Your task to perform on an android device: Open internet settings Image 0: 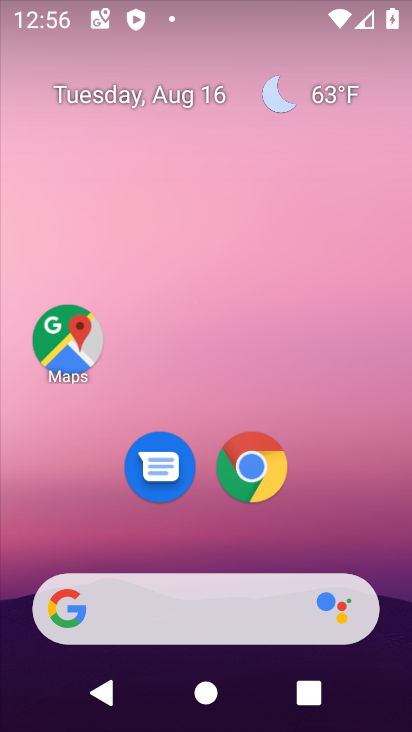
Step 0: drag from (360, 522) to (377, 106)
Your task to perform on an android device: Open internet settings Image 1: 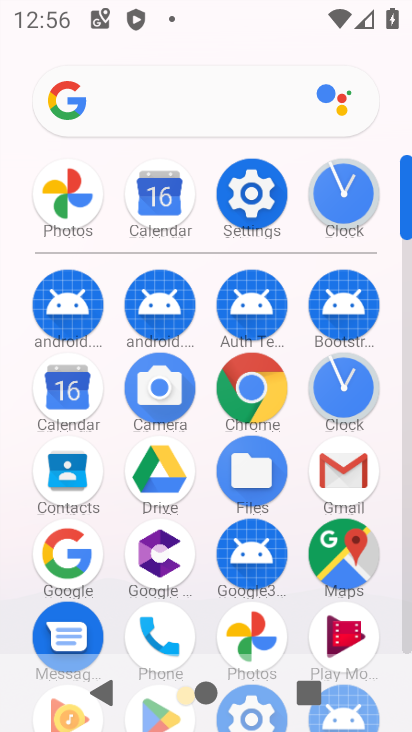
Step 1: click (253, 202)
Your task to perform on an android device: Open internet settings Image 2: 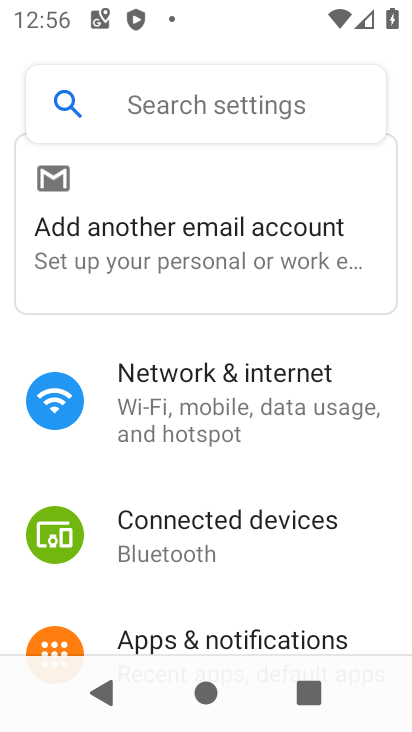
Step 2: drag from (376, 567) to (379, 453)
Your task to perform on an android device: Open internet settings Image 3: 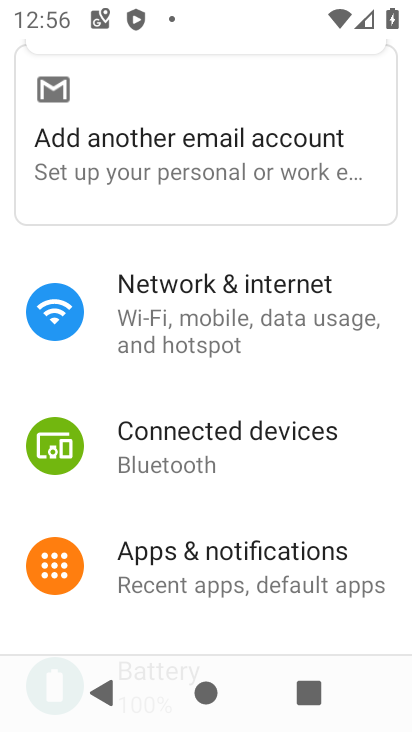
Step 3: drag from (357, 597) to (357, 449)
Your task to perform on an android device: Open internet settings Image 4: 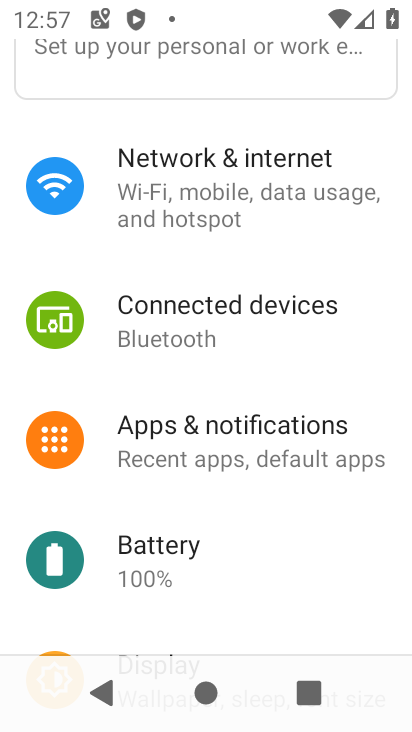
Step 4: drag from (352, 579) to (356, 450)
Your task to perform on an android device: Open internet settings Image 5: 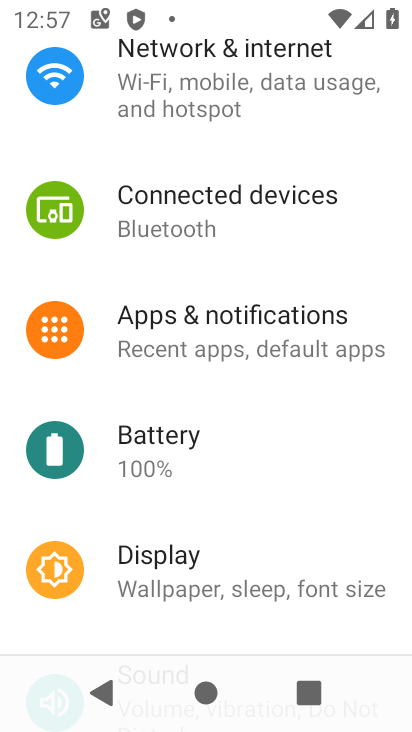
Step 5: drag from (369, 622) to (369, 471)
Your task to perform on an android device: Open internet settings Image 6: 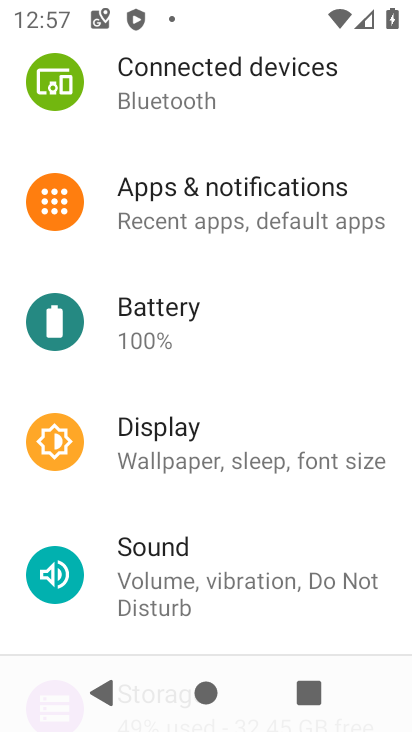
Step 6: drag from (352, 617) to (362, 471)
Your task to perform on an android device: Open internet settings Image 7: 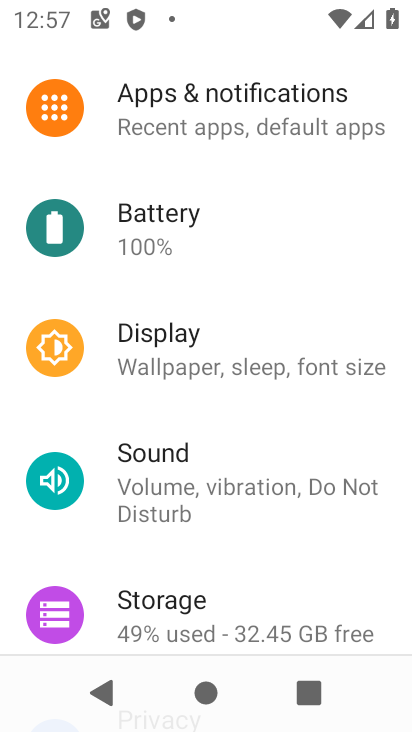
Step 7: drag from (356, 592) to (356, 456)
Your task to perform on an android device: Open internet settings Image 8: 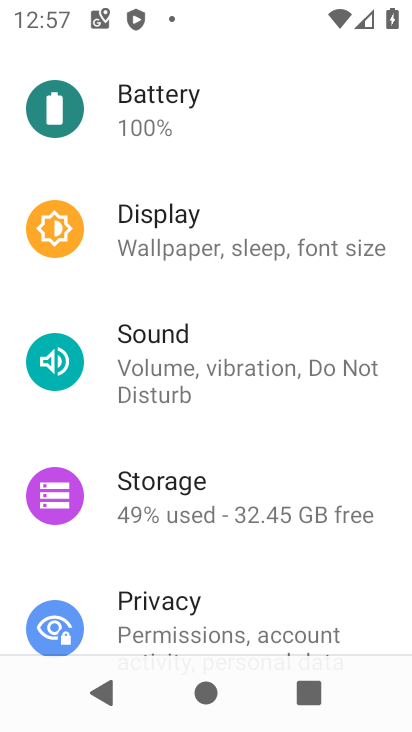
Step 8: drag from (364, 594) to (356, 440)
Your task to perform on an android device: Open internet settings Image 9: 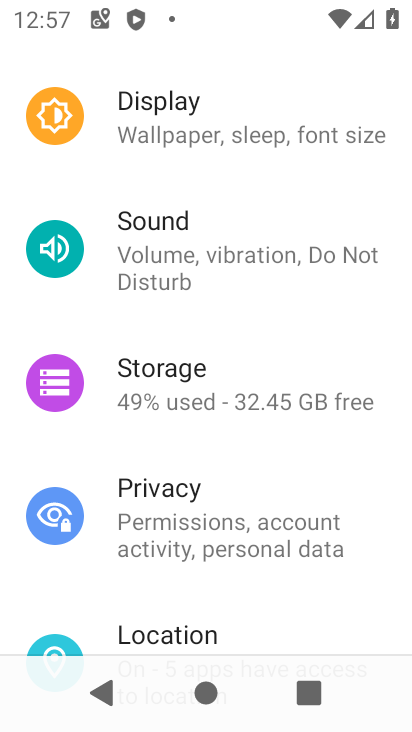
Step 9: drag from (361, 617) to (356, 485)
Your task to perform on an android device: Open internet settings Image 10: 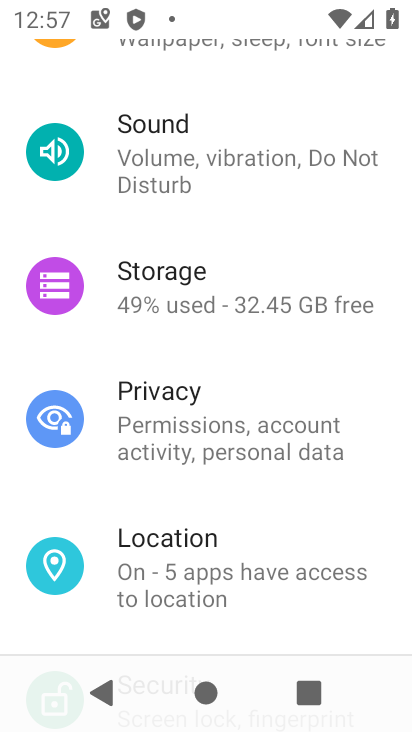
Step 10: drag from (368, 601) to (371, 378)
Your task to perform on an android device: Open internet settings Image 11: 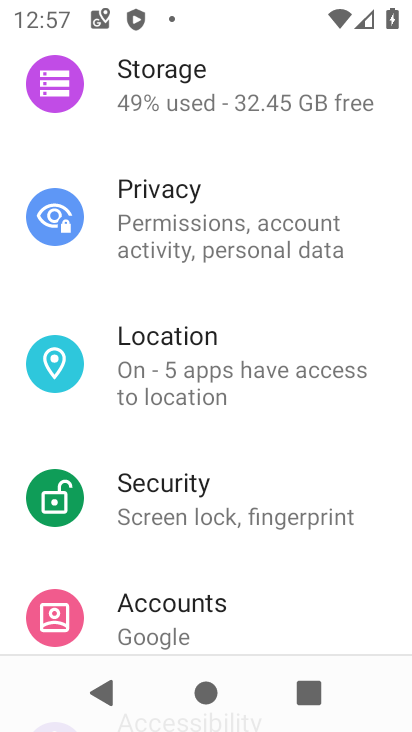
Step 11: drag from (374, 252) to (364, 384)
Your task to perform on an android device: Open internet settings Image 12: 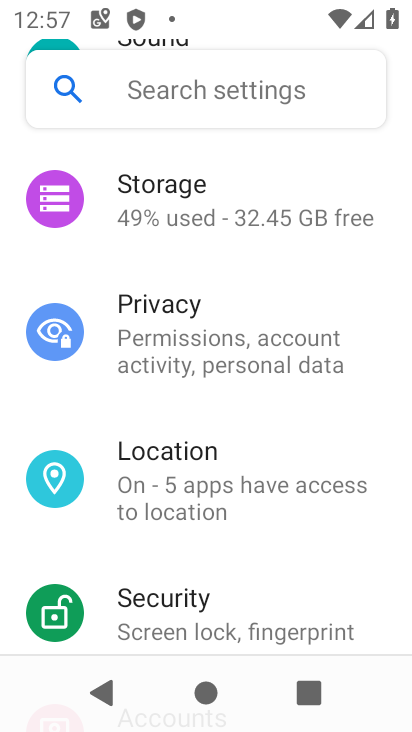
Step 12: drag from (375, 277) to (371, 375)
Your task to perform on an android device: Open internet settings Image 13: 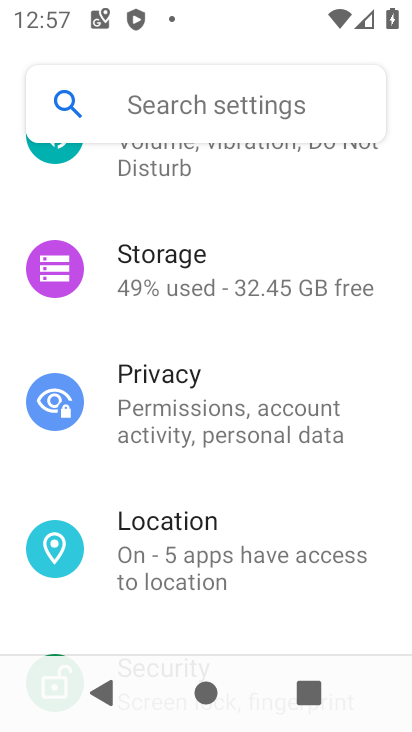
Step 13: drag from (389, 244) to (377, 373)
Your task to perform on an android device: Open internet settings Image 14: 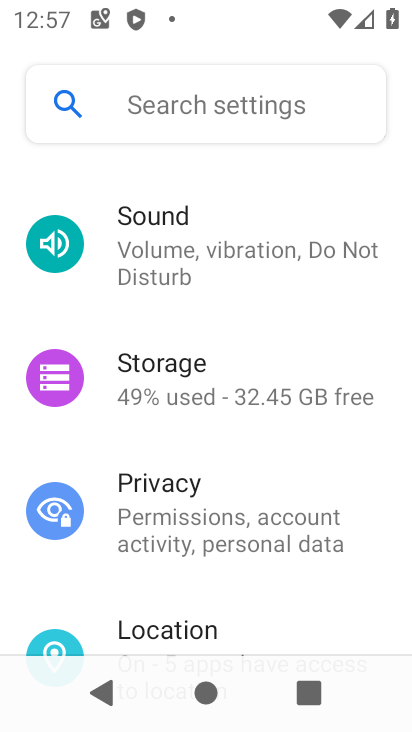
Step 14: drag from (375, 298) to (372, 407)
Your task to perform on an android device: Open internet settings Image 15: 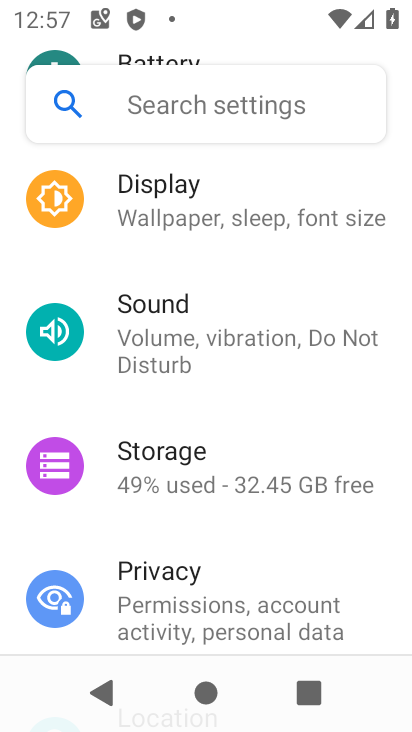
Step 15: drag from (375, 259) to (373, 380)
Your task to perform on an android device: Open internet settings Image 16: 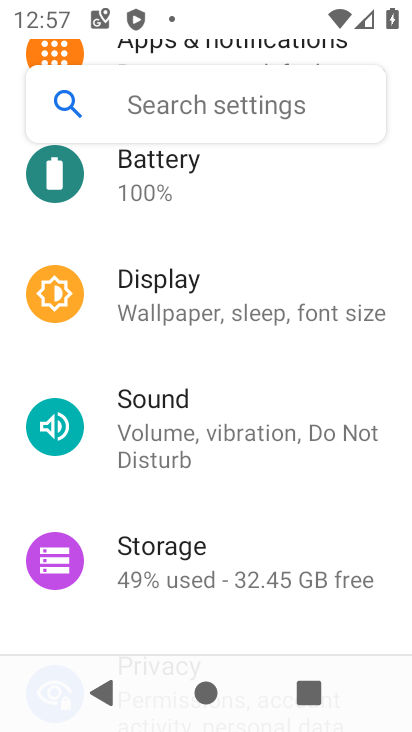
Step 16: drag from (364, 227) to (359, 370)
Your task to perform on an android device: Open internet settings Image 17: 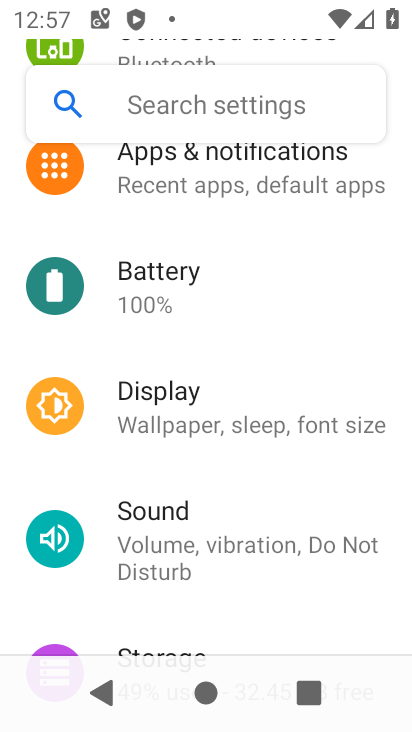
Step 17: drag from (370, 234) to (366, 398)
Your task to perform on an android device: Open internet settings Image 18: 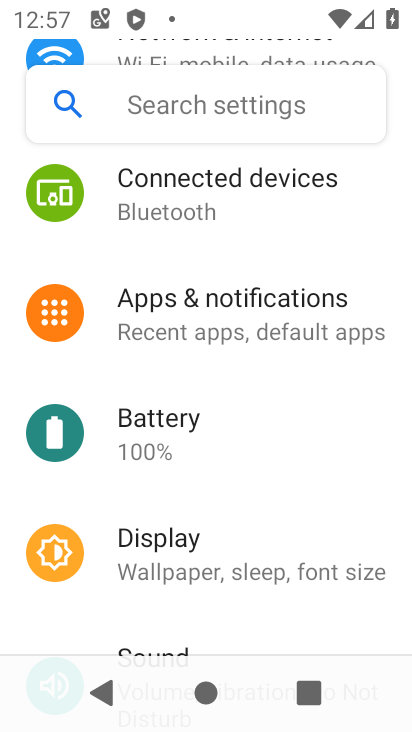
Step 18: drag from (383, 208) to (375, 380)
Your task to perform on an android device: Open internet settings Image 19: 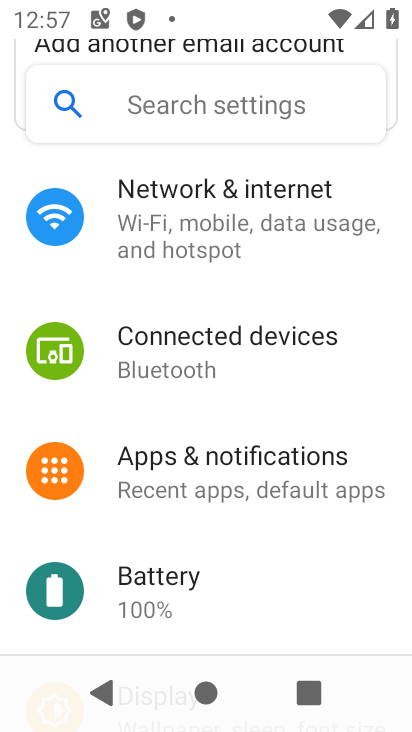
Step 19: drag from (380, 191) to (377, 379)
Your task to perform on an android device: Open internet settings Image 20: 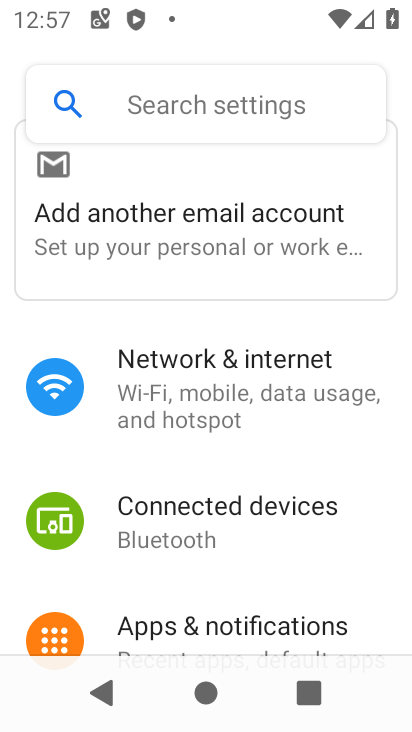
Step 20: click (325, 368)
Your task to perform on an android device: Open internet settings Image 21: 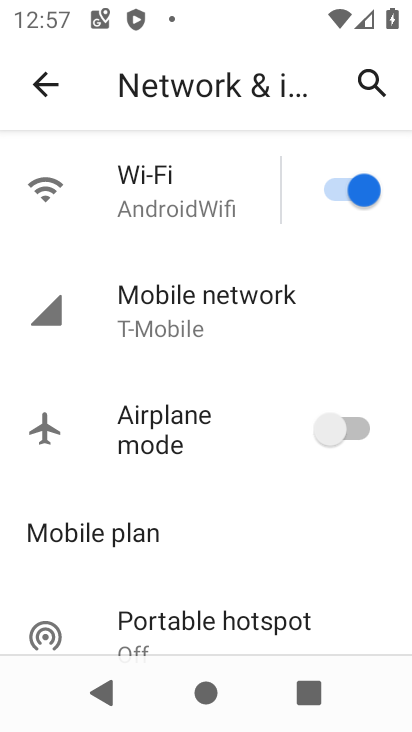
Step 21: task complete